Your task to perform on an android device: turn off javascript in the chrome app Image 0: 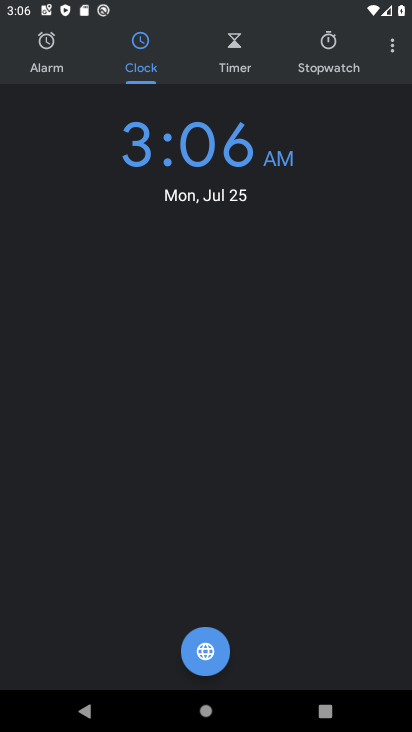
Step 0: press home button
Your task to perform on an android device: turn off javascript in the chrome app Image 1: 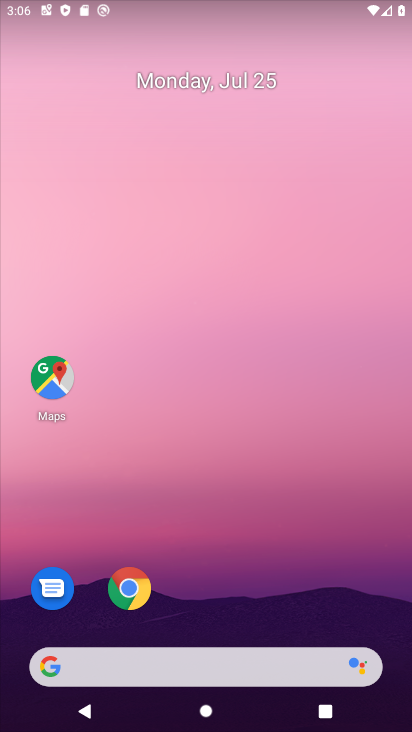
Step 1: click (124, 596)
Your task to perform on an android device: turn off javascript in the chrome app Image 2: 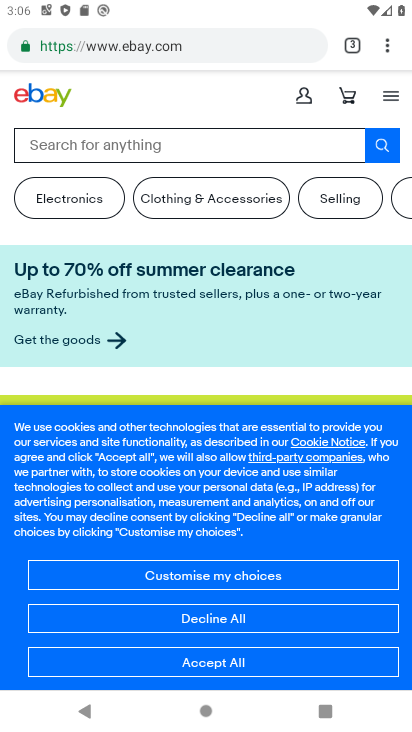
Step 2: click (383, 56)
Your task to perform on an android device: turn off javascript in the chrome app Image 3: 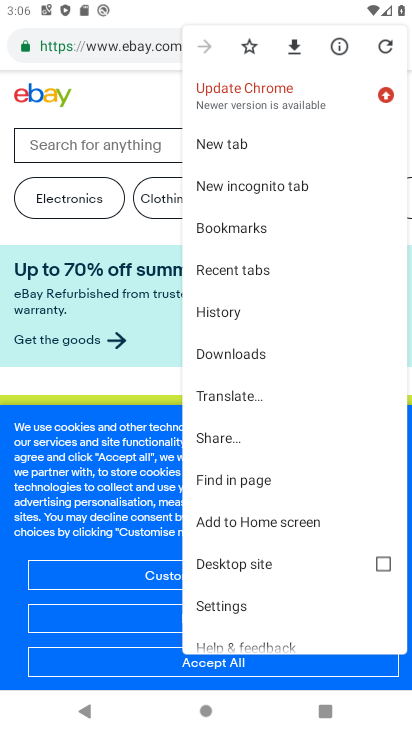
Step 3: click (218, 594)
Your task to perform on an android device: turn off javascript in the chrome app Image 4: 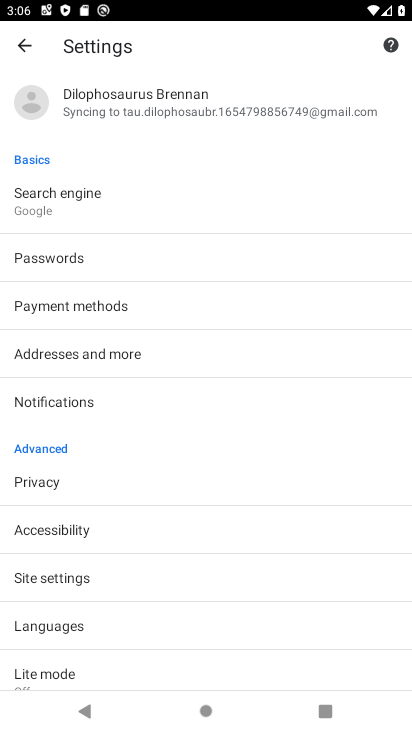
Step 4: click (56, 583)
Your task to perform on an android device: turn off javascript in the chrome app Image 5: 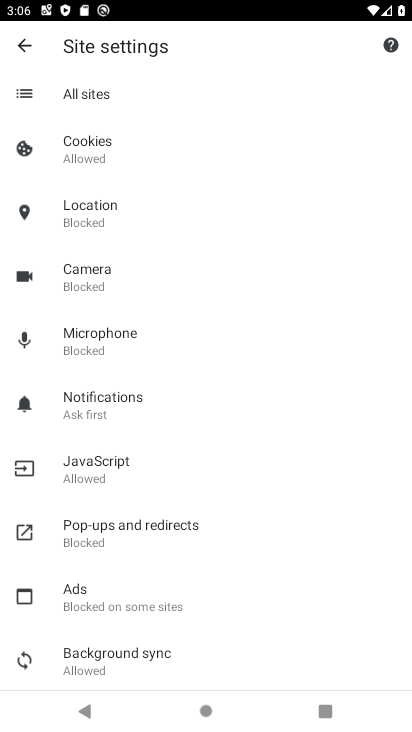
Step 5: click (124, 471)
Your task to perform on an android device: turn off javascript in the chrome app Image 6: 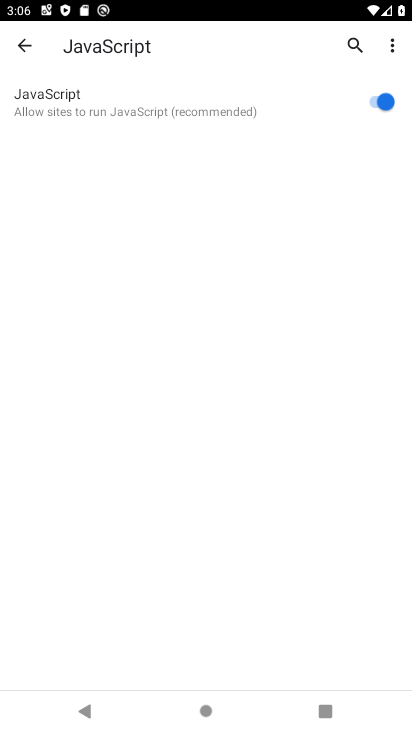
Step 6: click (373, 109)
Your task to perform on an android device: turn off javascript in the chrome app Image 7: 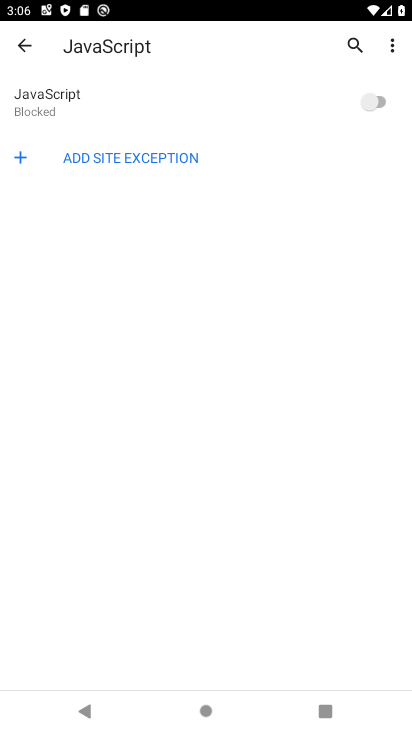
Step 7: task complete